Your task to perform on an android device: change text size in settings app Image 0: 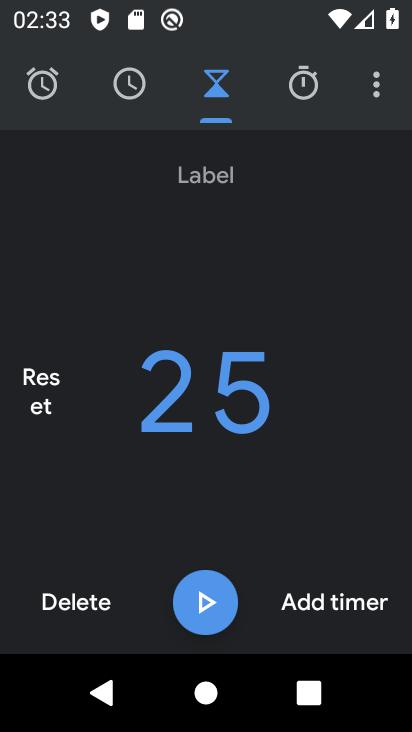
Step 0: press home button
Your task to perform on an android device: change text size in settings app Image 1: 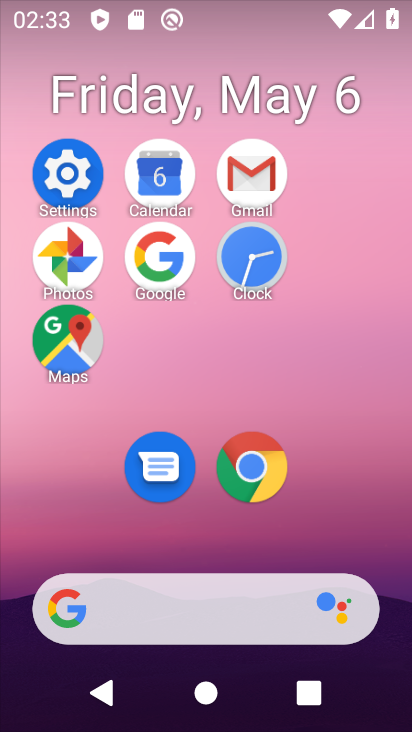
Step 1: click (72, 189)
Your task to perform on an android device: change text size in settings app Image 2: 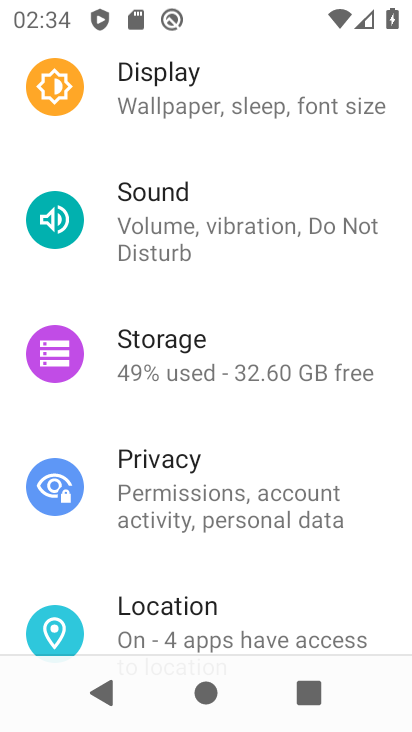
Step 2: drag from (268, 572) to (239, 205)
Your task to perform on an android device: change text size in settings app Image 3: 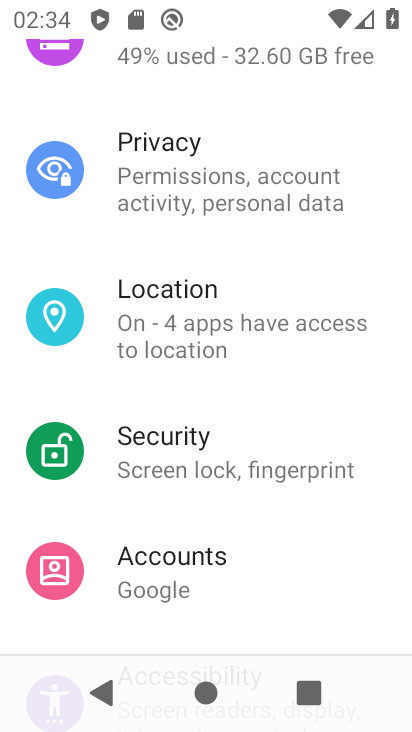
Step 3: drag from (266, 543) to (287, 257)
Your task to perform on an android device: change text size in settings app Image 4: 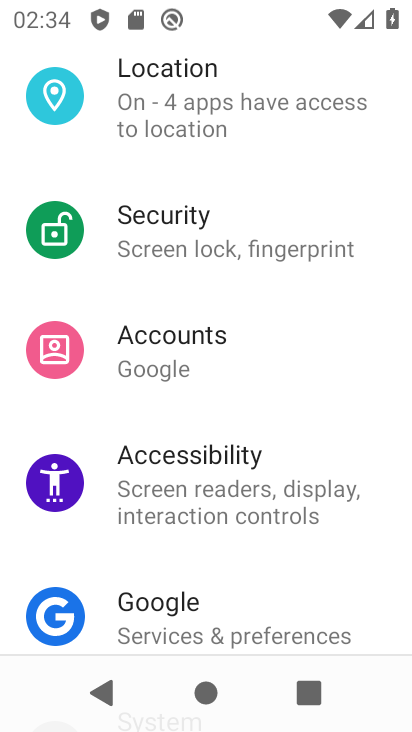
Step 4: drag from (281, 562) to (317, 194)
Your task to perform on an android device: change text size in settings app Image 5: 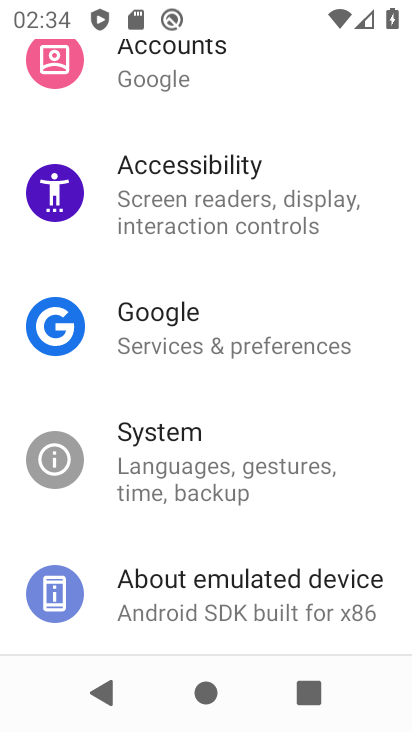
Step 5: drag from (333, 124) to (342, 571)
Your task to perform on an android device: change text size in settings app Image 6: 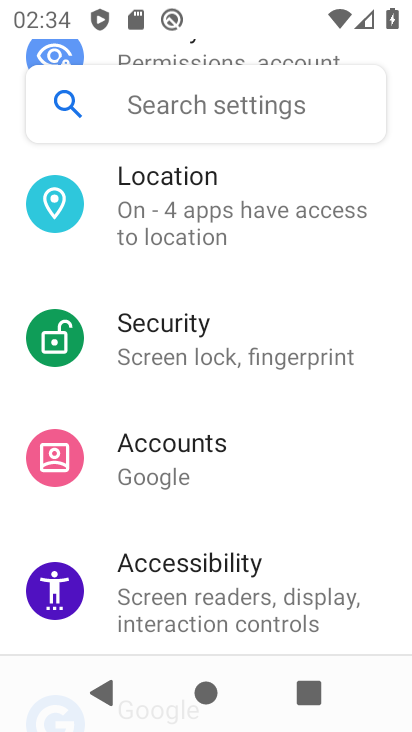
Step 6: drag from (318, 274) to (306, 559)
Your task to perform on an android device: change text size in settings app Image 7: 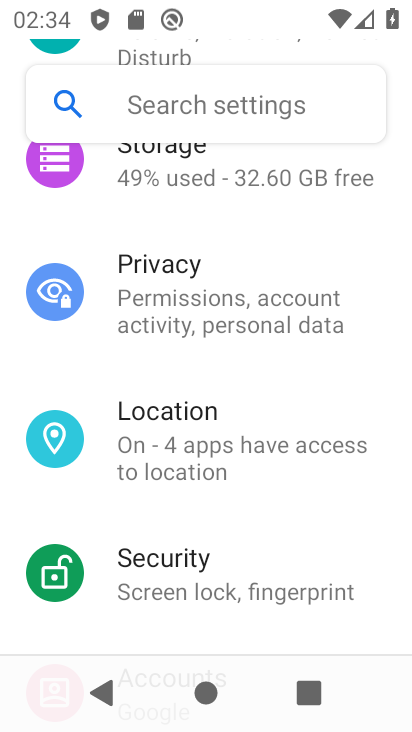
Step 7: drag from (277, 250) to (295, 536)
Your task to perform on an android device: change text size in settings app Image 8: 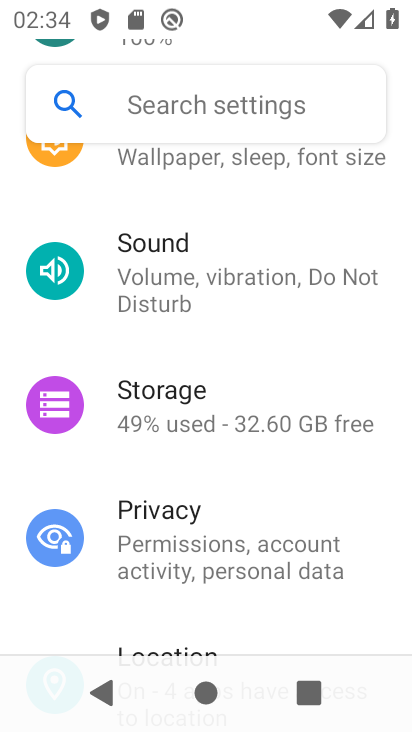
Step 8: click (265, 160)
Your task to perform on an android device: change text size in settings app Image 9: 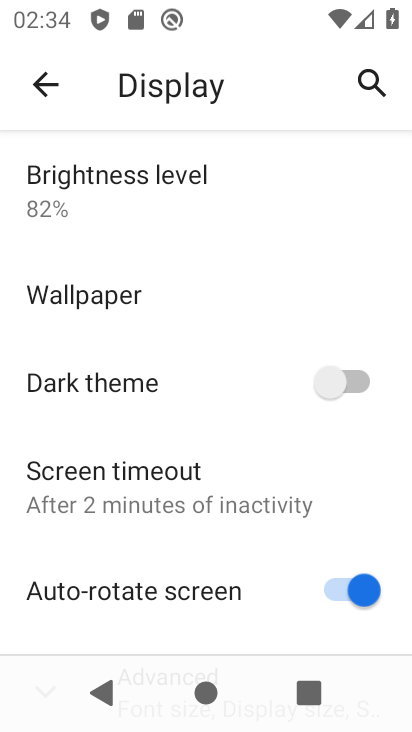
Step 9: drag from (261, 545) to (276, 178)
Your task to perform on an android device: change text size in settings app Image 10: 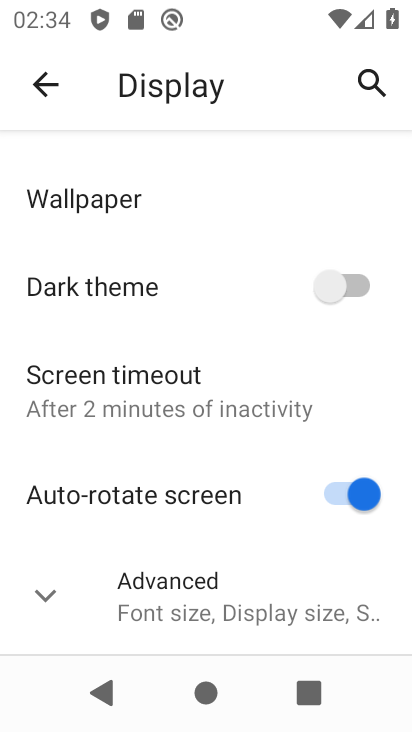
Step 10: click (229, 576)
Your task to perform on an android device: change text size in settings app Image 11: 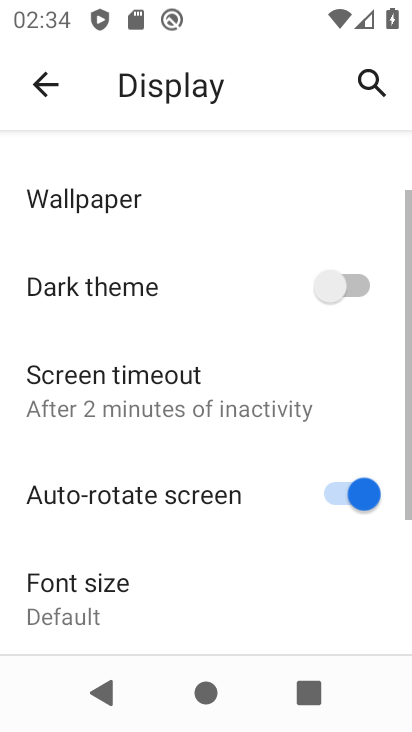
Step 11: drag from (229, 576) to (262, 248)
Your task to perform on an android device: change text size in settings app Image 12: 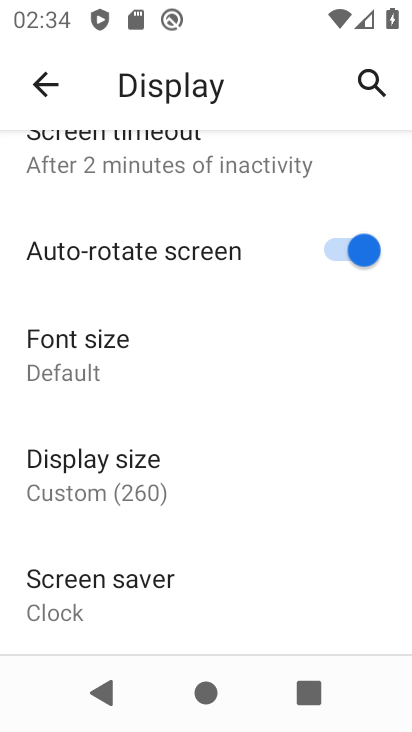
Step 12: drag from (225, 512) to (235, 415)
Your task to perform on an android device: change text size in settings app Image 13: 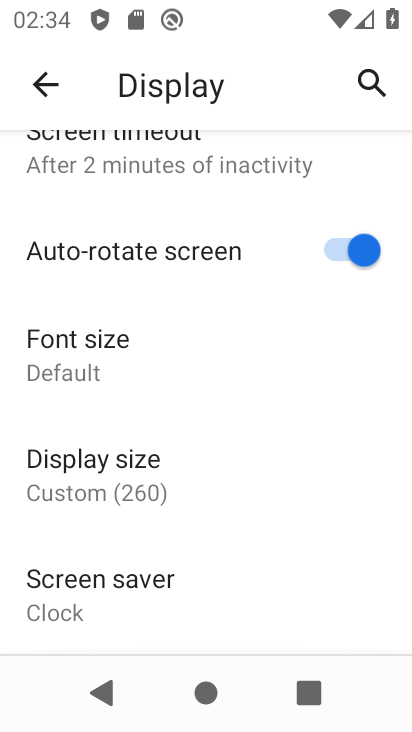
Step 13: click (174, 348)
Your task to perform on an android device: change text size in settings app Image 14: 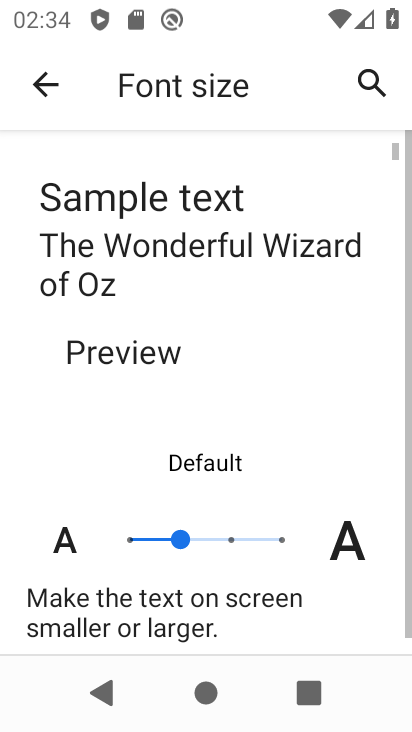
Step 14: click (226, 543)
Your task to perform on an android device: change text size in settings app Image 15: 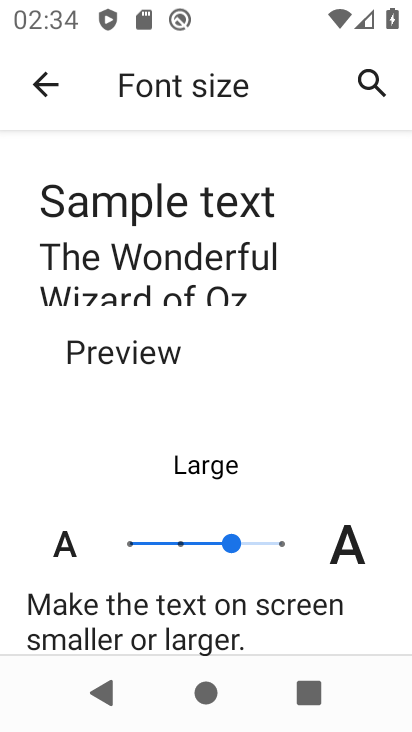
Step 15: task complete